Your task to perform on an android device: Open wifi settings Image 0: 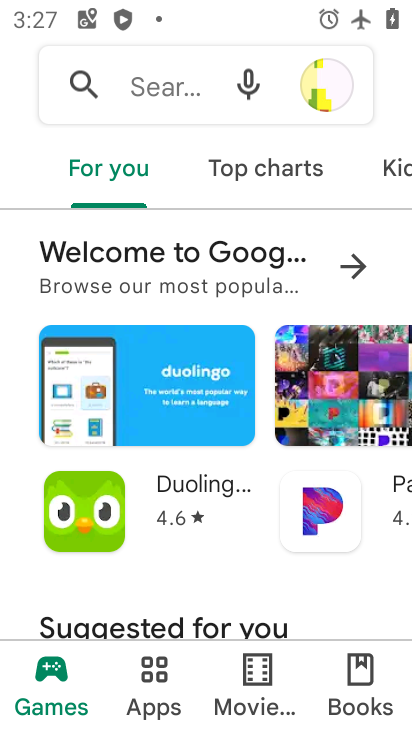
Step 0: press home button
Your task to perform on an android device: Open wifi settings Image 1: 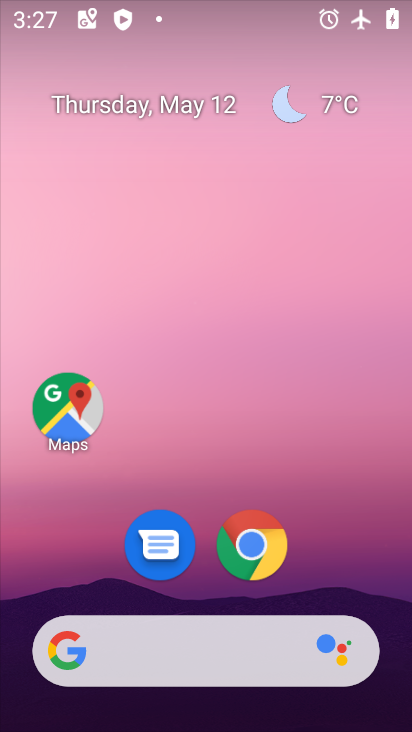
Step 1: drag from (402, 651) to (273, 157)
Your task to perform on an android device: Open wifi settings Image 2: 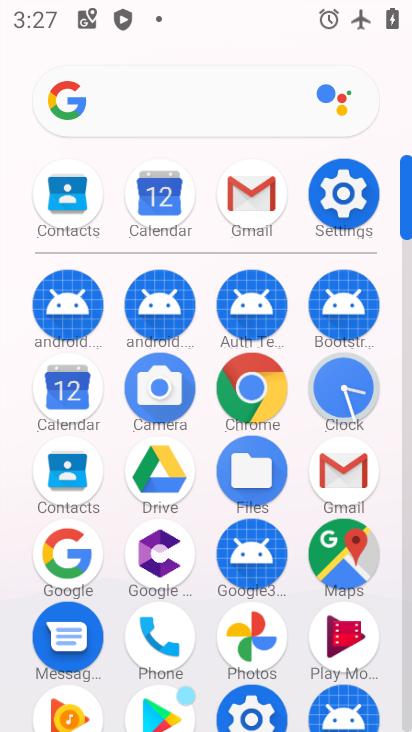
Step 2: click (405, 707)
Your task to perform on an android device: Open wifi settings Image 3: 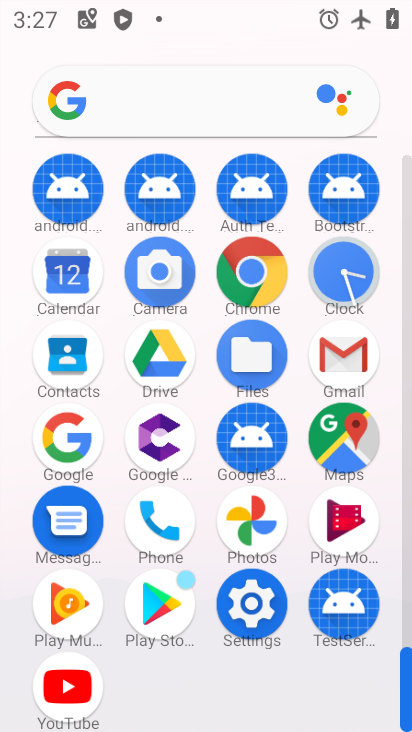
Step 3: click (254, 604)
Your task to perform on an android device: Open wifi settings Image 4: 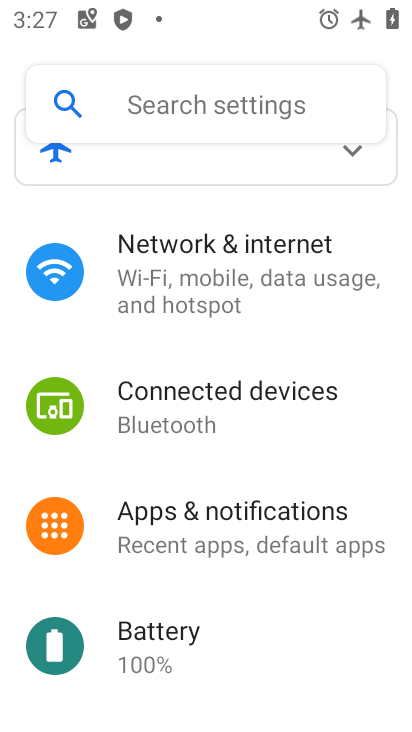
Step 4: click (190, 224)
Your task to perform on an android device: Open wifi settings Image 5: 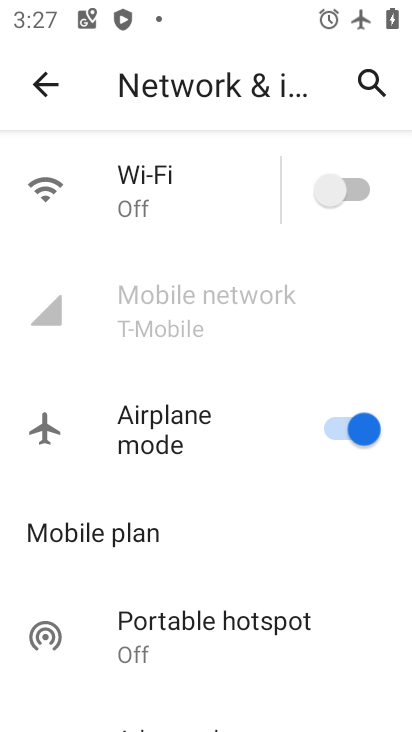
Step 5: click (122, 169)
Your task to perform on an android device: Open wifi settings Image 6: 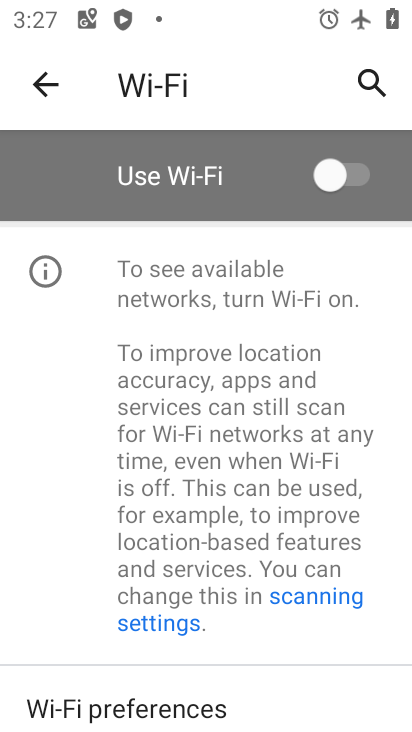
Step 6: task complete